Your task to perform on an android device: check out phone information Image 0: 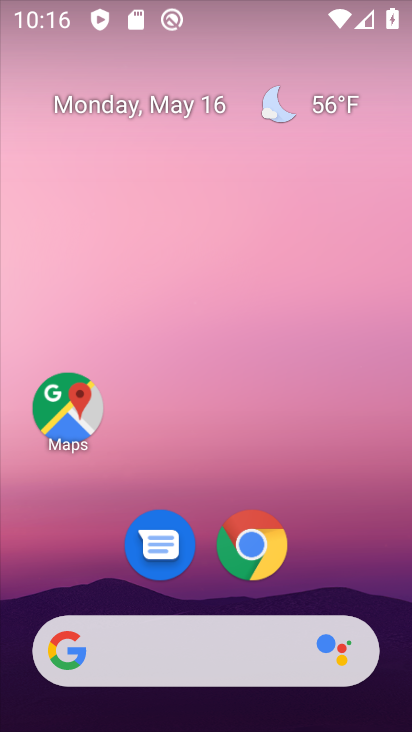
Step 0: drag from (204, 617) to (174, 27)
Your task to perform on an android device: check out phone information Image 1: 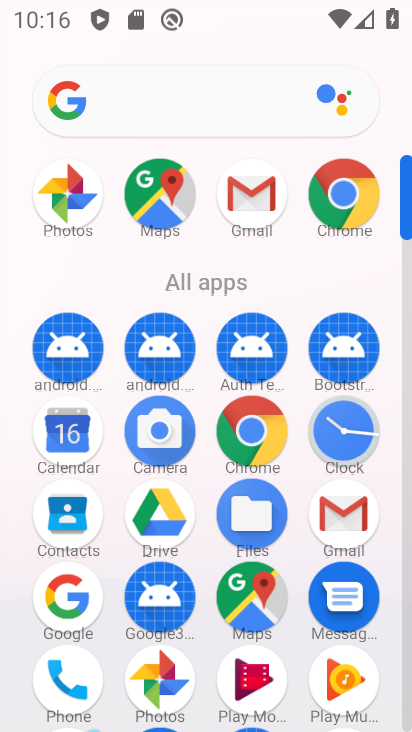
Step 1: drag from (204, 501) to (162, 0)
Your task to perform on an android device: check out phone information Image 2: 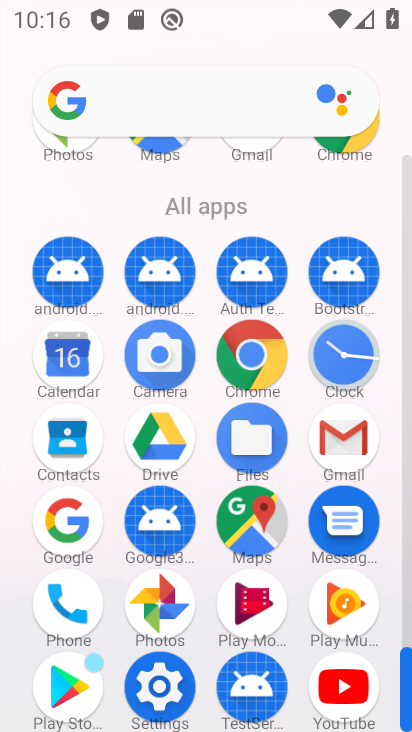
Step 2: click (149, 696)
Your task to perform on an android device: check out phone information Image 3: 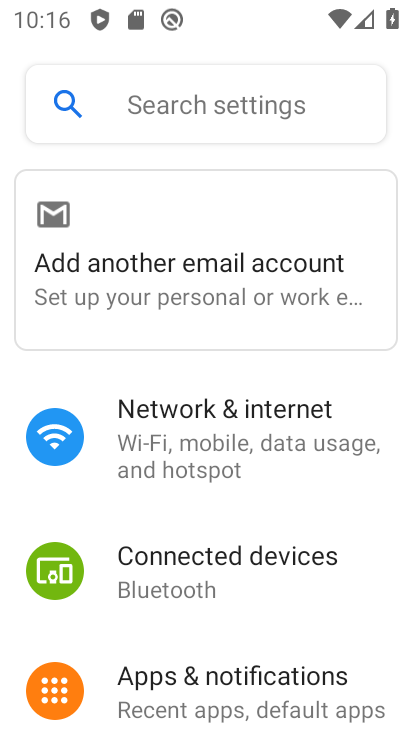
Step 3: task complete